Your task to perform on an android device: find snoozed emails in the gmail app Image 0: 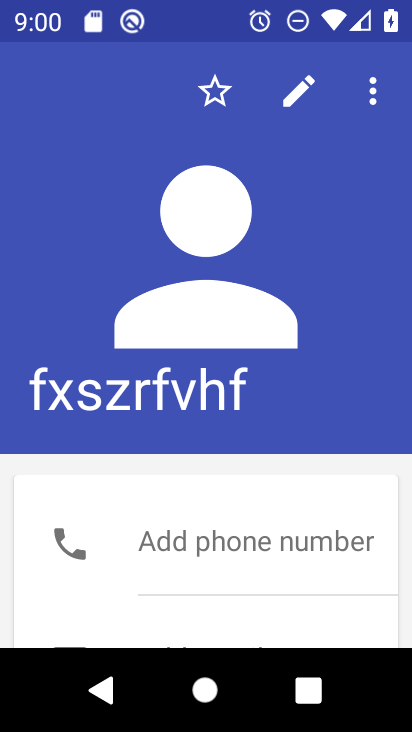
Step 0: press home button
Your task to perform on an android device: find snoozed emails in the gmail app Image 1: 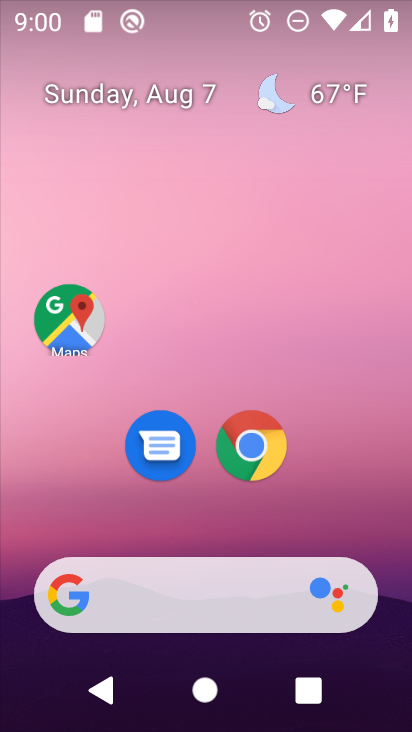
Step 1: drag from (201, 493) to (231, 78)
Your task to perform on an android device: find snoozed emails in the gmail app Image 2: 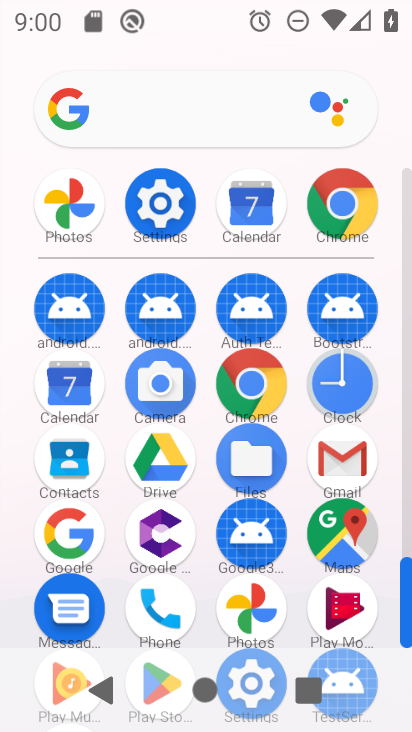
Step 2: click (342, 448)
Your task to perform on an android device: find snoozed emails in the gmail app Image 3: 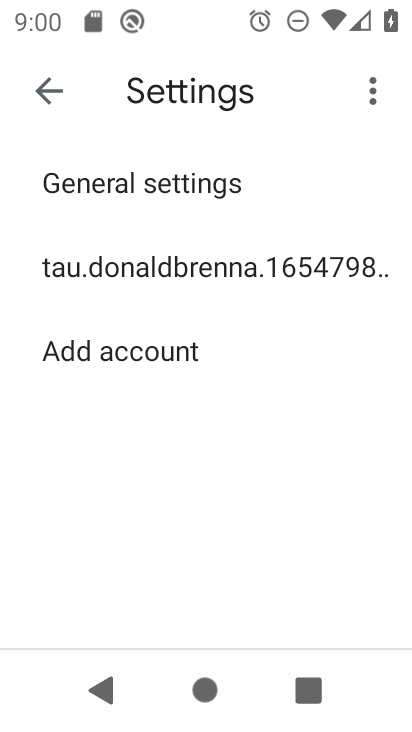
Step 3: click (54, 86)
Your task to perform on an android device: find snoozed emails in the gmail app Image 4: 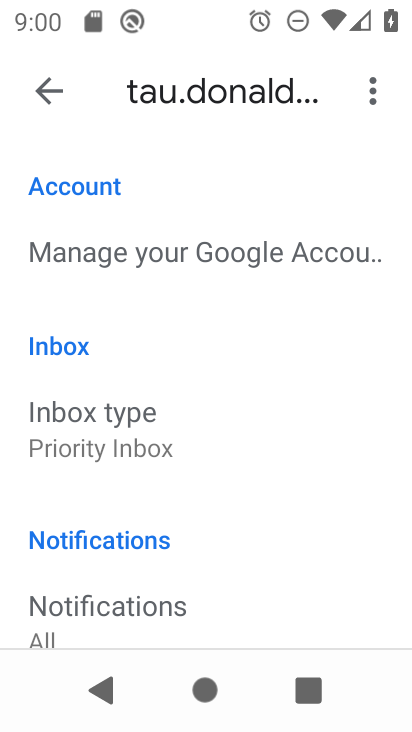
Step 4: click (34, 95)
Your task to perform on an android device: find snoozed emails in the gmail app Image 5: 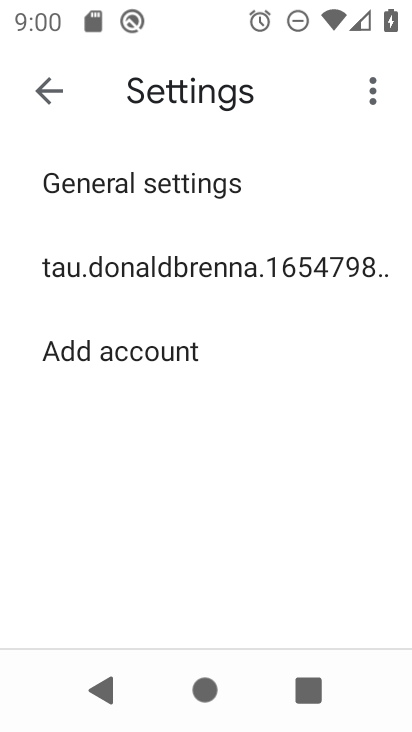
Step 5: click (41, 88)
Your task to perform on an android device: find snoozed emails in the gmail app Image 6: 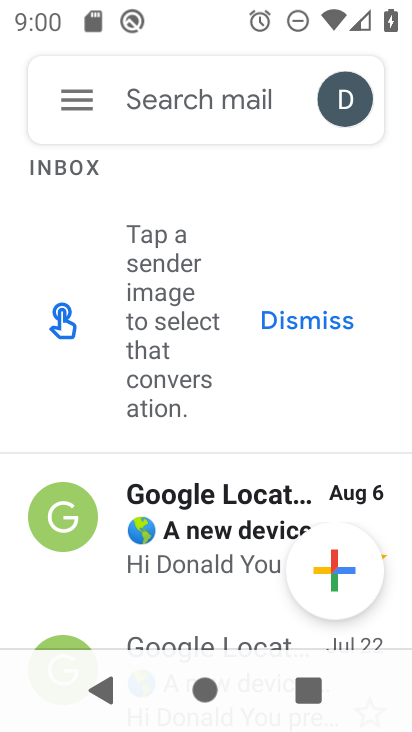
Step 6: click (79, 105)
Your task to perform on an android device: find snoozed emails in the gmail app Image 7: 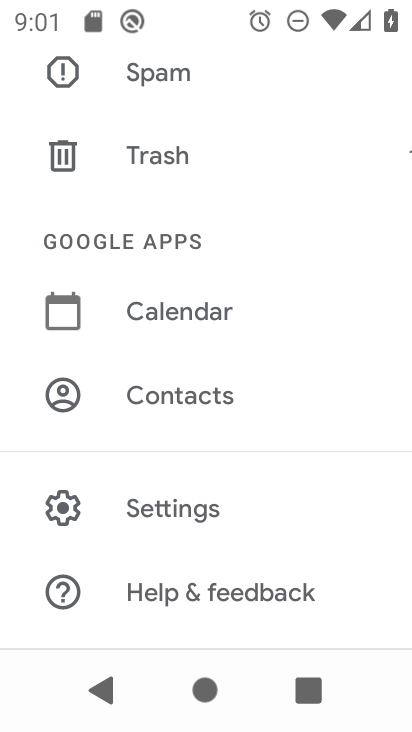
Step 7: drag from (150, 128) to (168, 642)
Your task to perform on an android device: find snoozed emails in the gmail app Image 8: 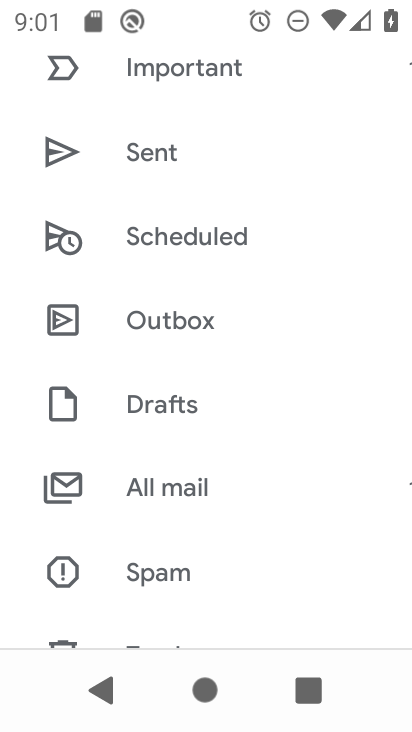
Step 8: drag from (176, 112) to (193, 579)
Your task to perform on an android device: find snoozed emails in the gmail app Image 9: 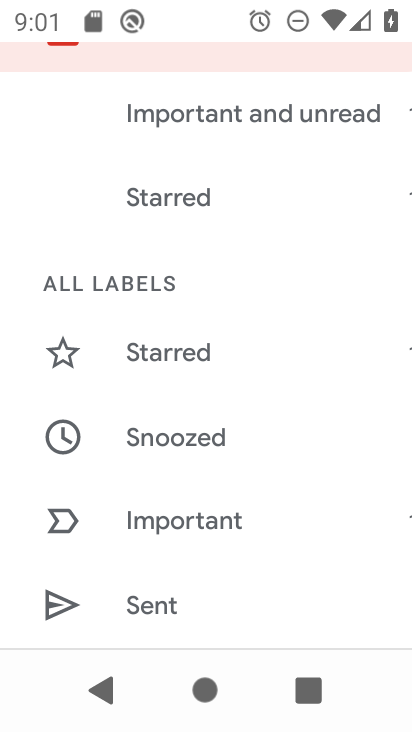
Step 9: click (105, 429)
Your task to perform on an android device: find snoozed emails in the gmail app Image 10: 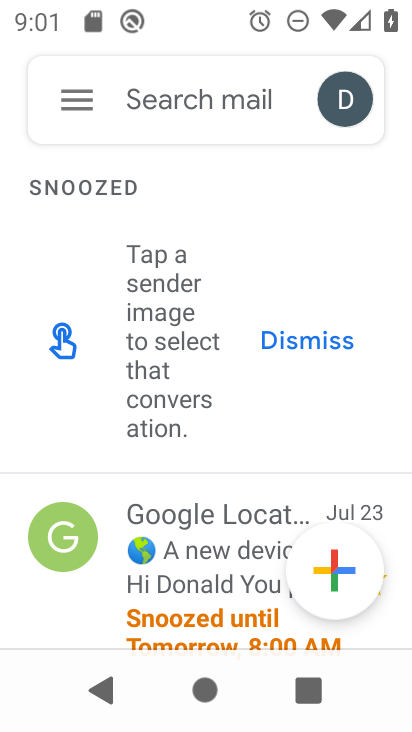
Step 10: task complete